Your task to perform on an android device: open app "Messenger Lite" (install if not already installed) Image 0: 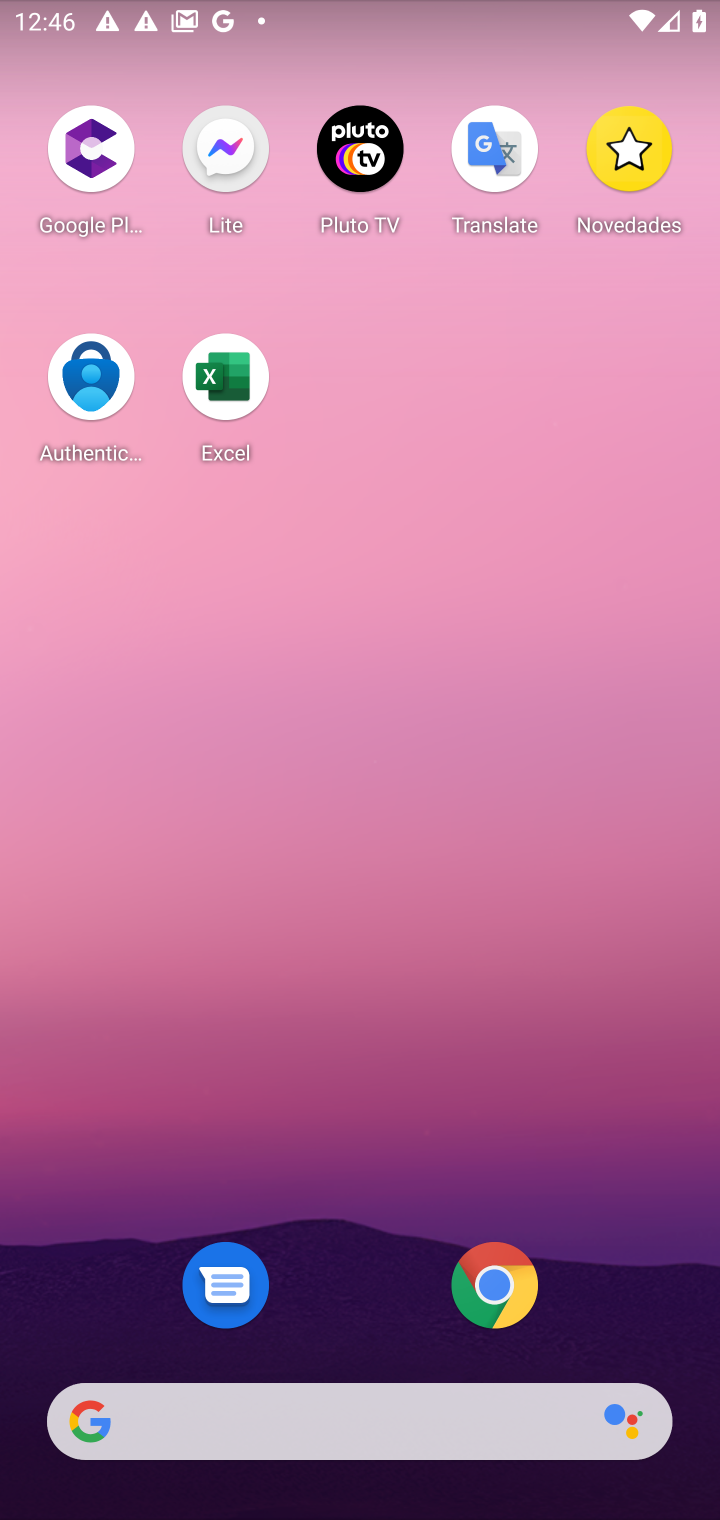
Step 0: drag from (385, 589) to (472, 176)
Your task to perform on an android device: open app "Messenger Lite" (install if not already installed) Image 1: 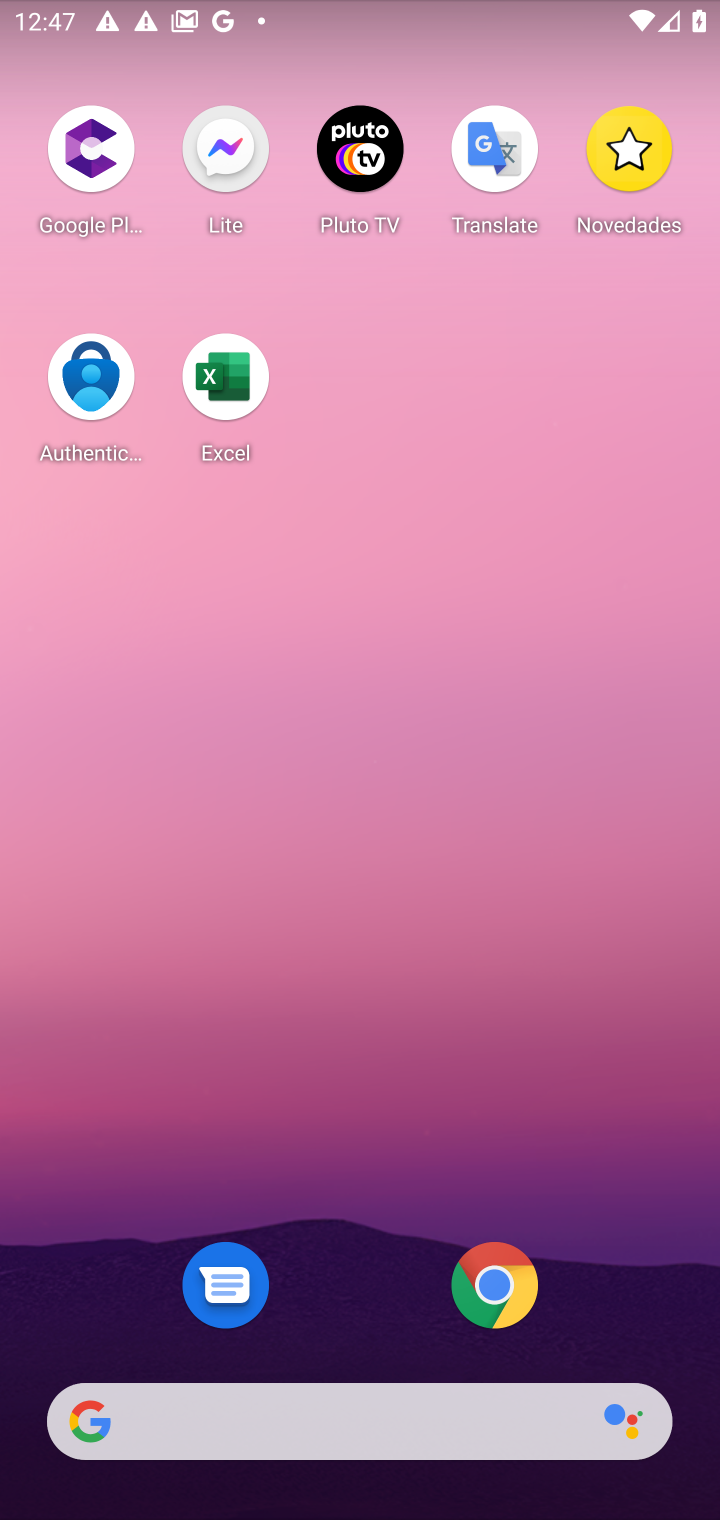
Step 1: click (586, 64)
Your task to perform on an android device: open app "Messenger Lite" (install if not already installed) Image 2: 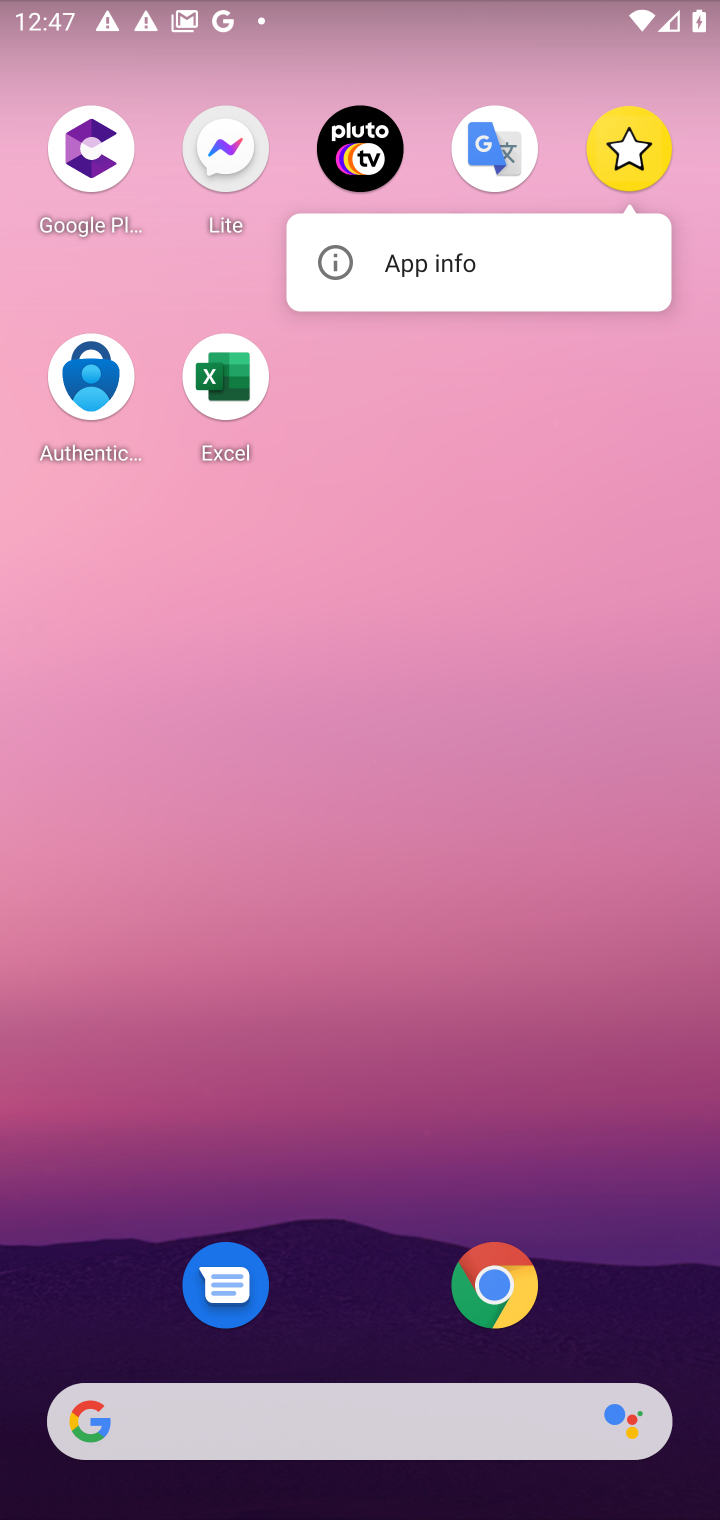
Step 2: click (407, 935)
Your task to perform on an android device: open app "Messenger Lite" (install if not already installed) Image 3: 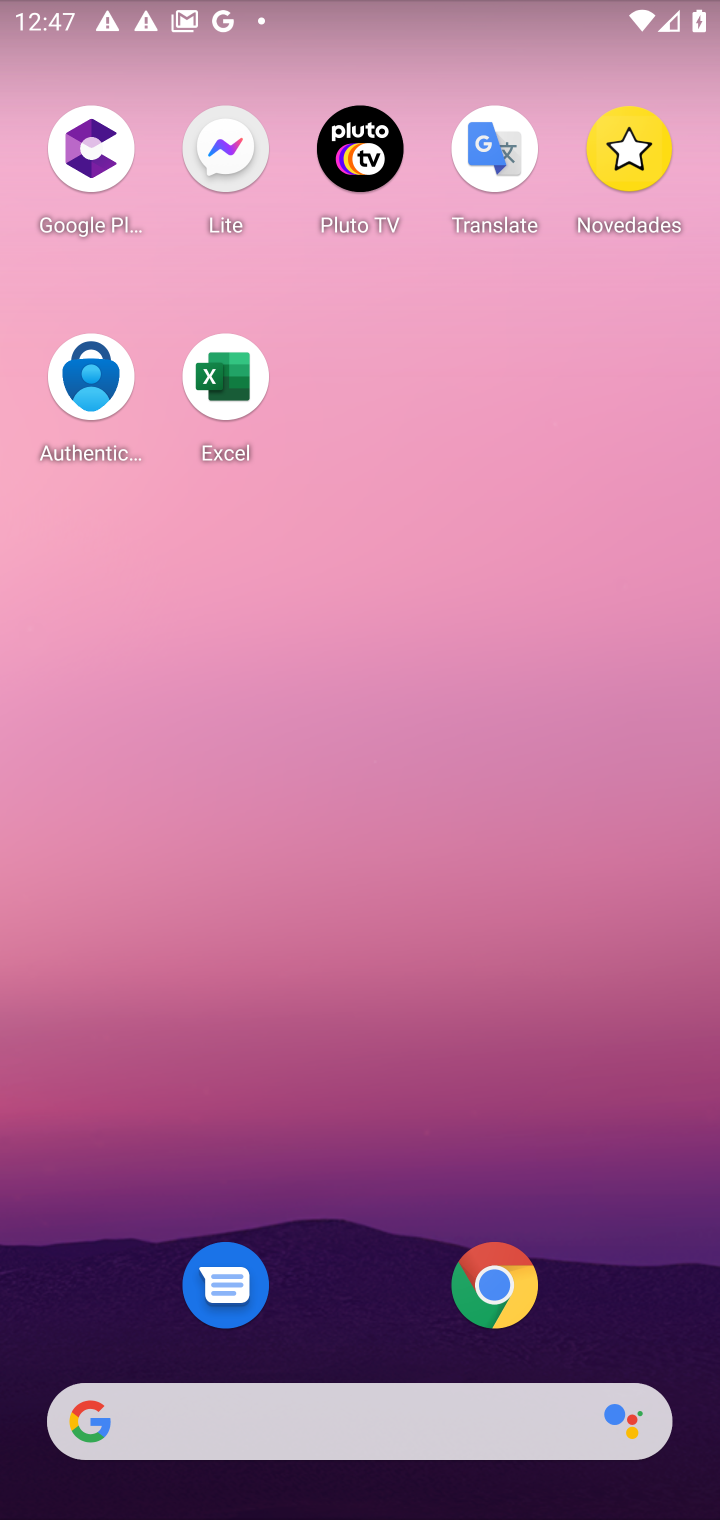
Step 3: drag from (401, 1059) to (540, 244)
Your task to perform on an android device: open app "Messenger Lite" (install if not already installed) Image 4: 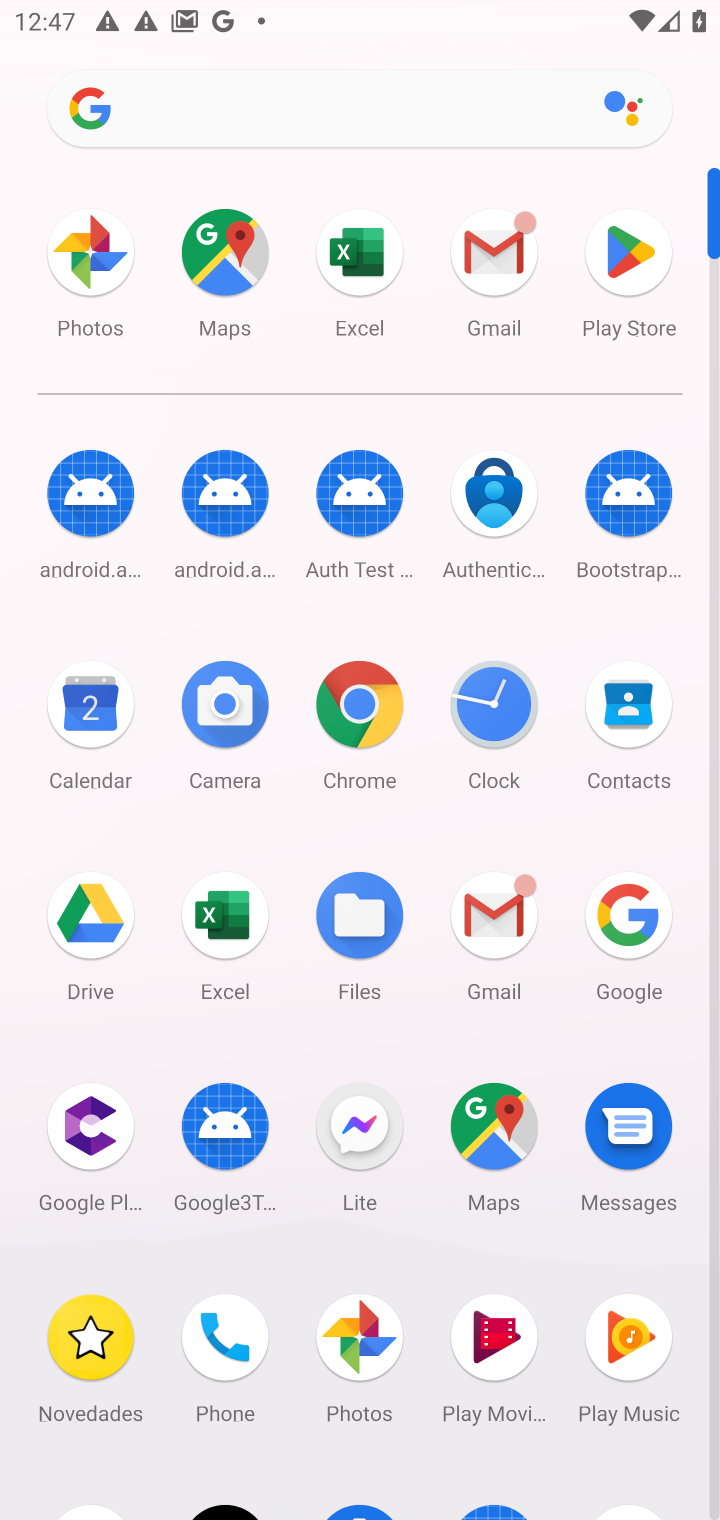
Step 4: drag from (429, 1261) to (503, 494)
Your task to perform on an android device: open app "Messenger Lite" (install if not already installed) Image 5: 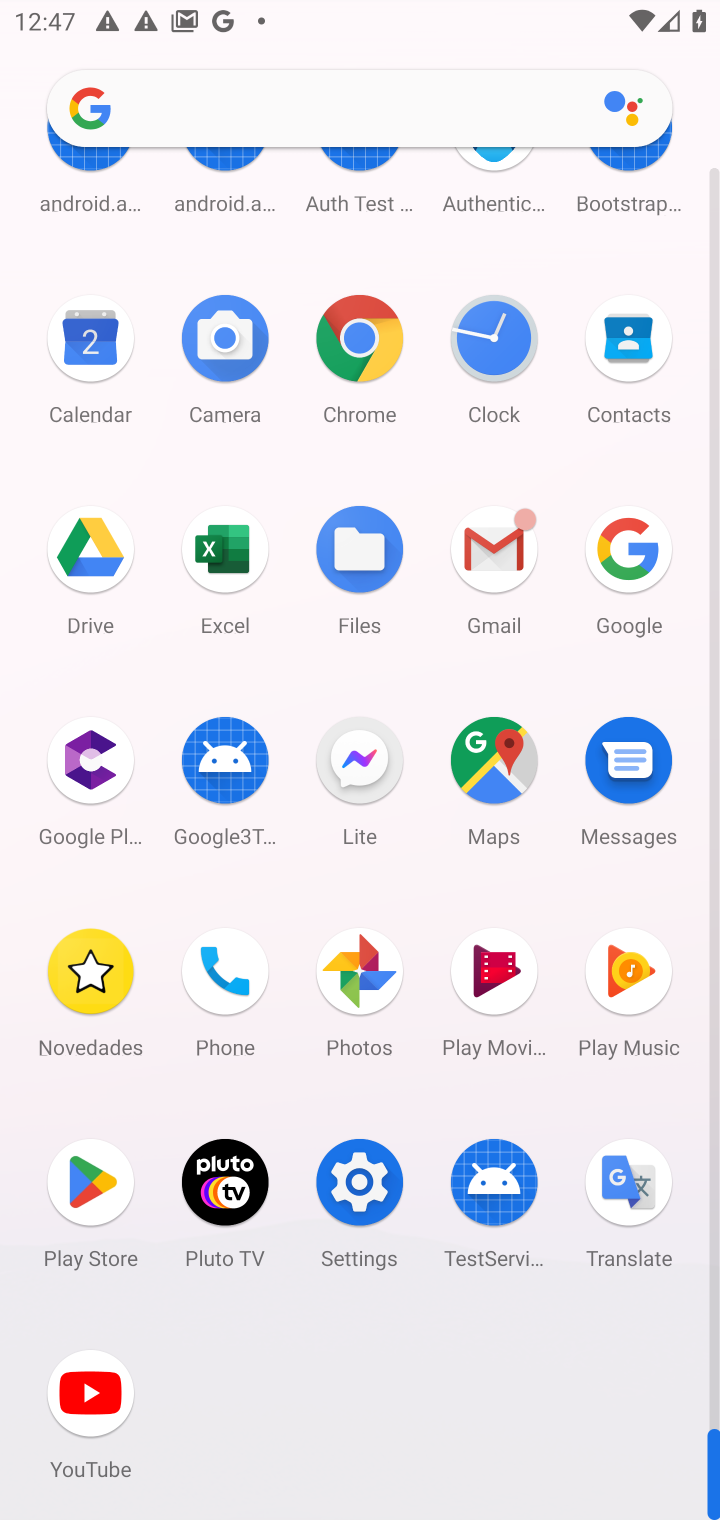
Step 5: click (74, 1173)
Your task to perform on an android device: open app "Messenger Lite" (install if not already installed) Image 6: 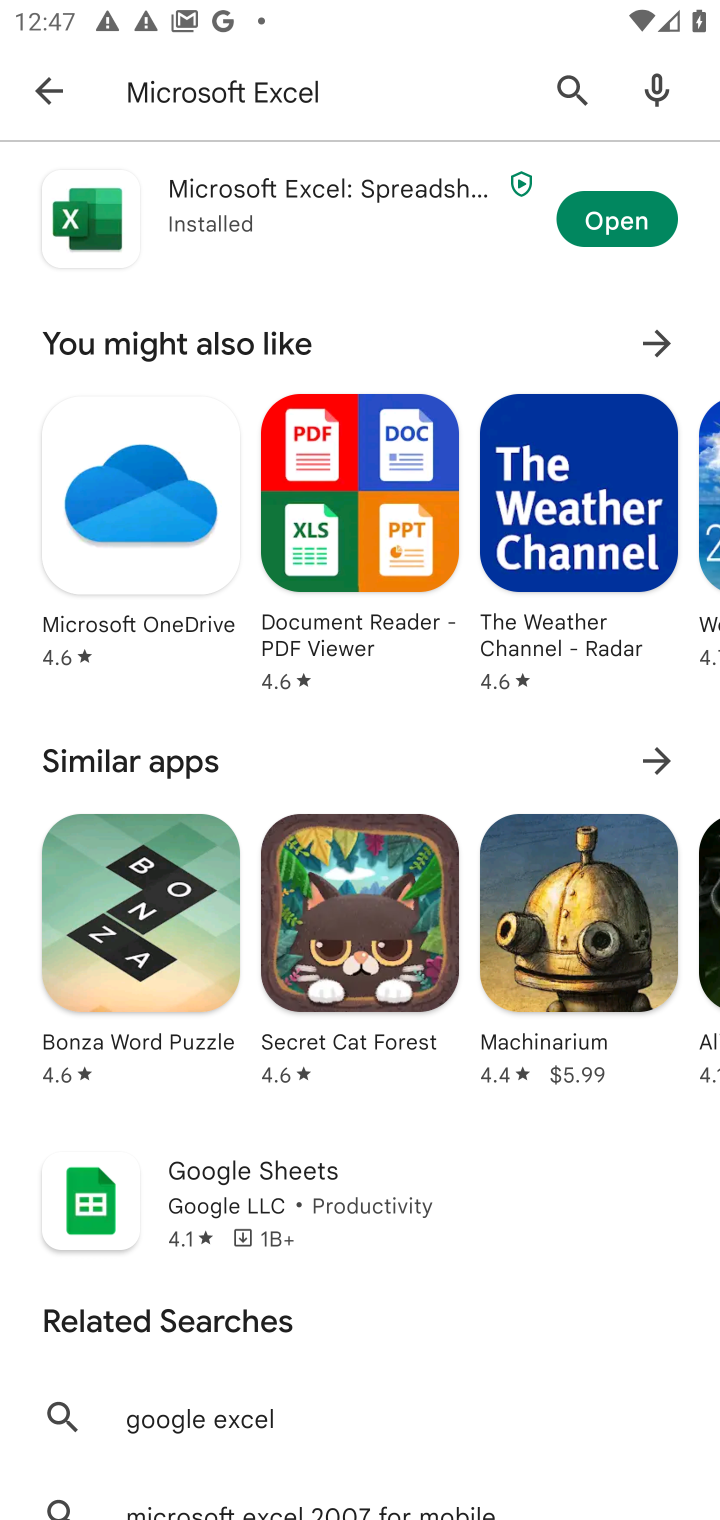
Step 6: click (463, 96)
Your task to perform on an android device: open app "Messenger Lite" (install if not already installed) Image 7: 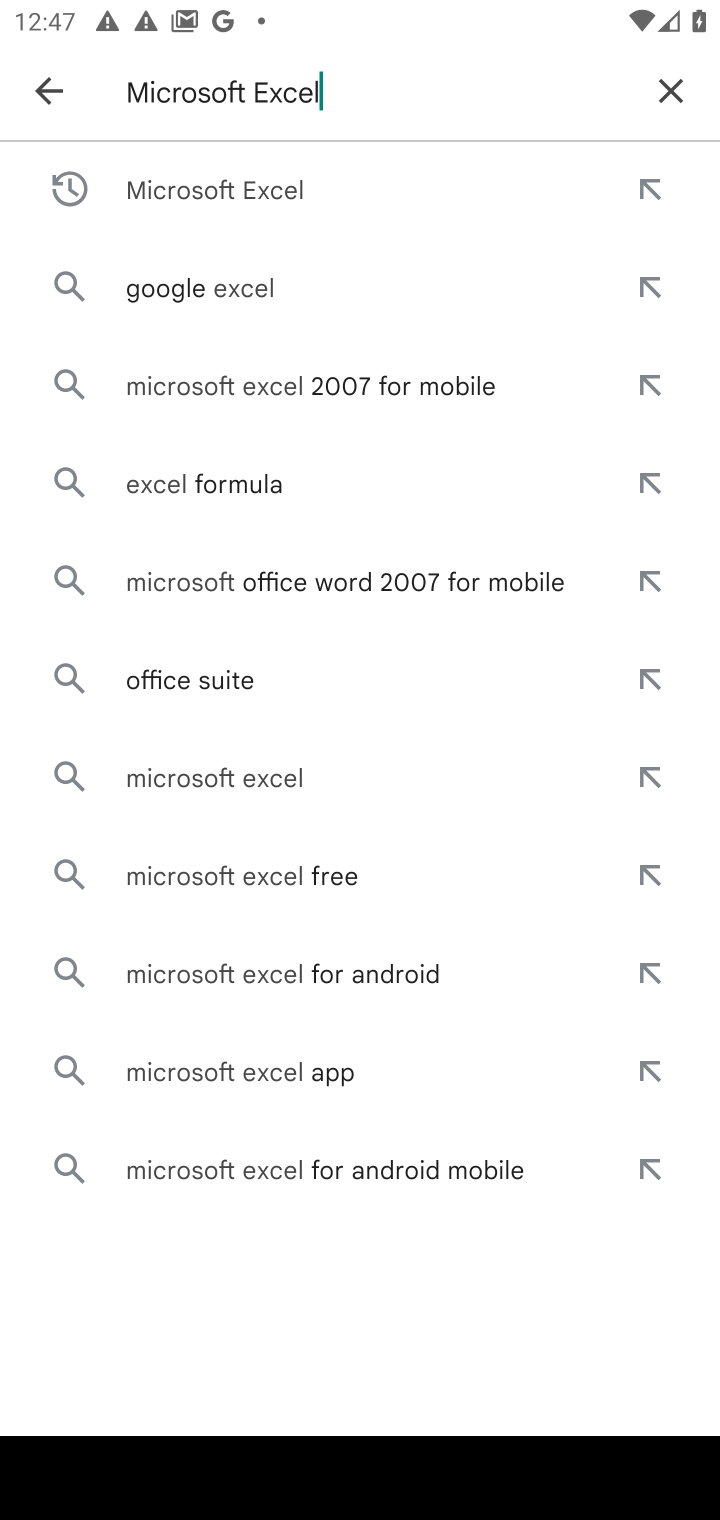
Step 7: click (674, 83)
Your task to perform on an android device: open app "Messenger Lite" (install if not already installed) Image 8: 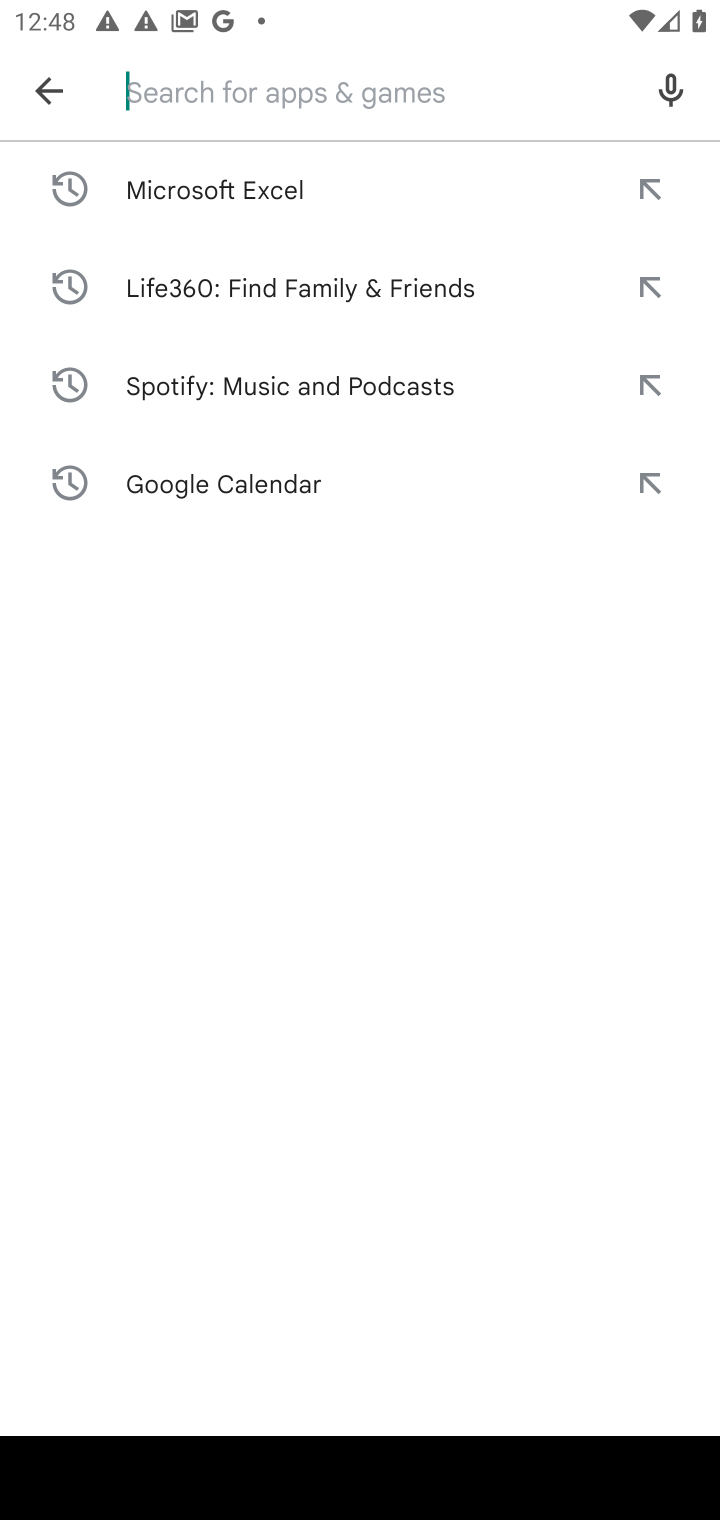
Step 8: type "Messenger Lite"
Your task to perform on an android device: open app "Messenger Lite" (install if not already installed) Image 9: 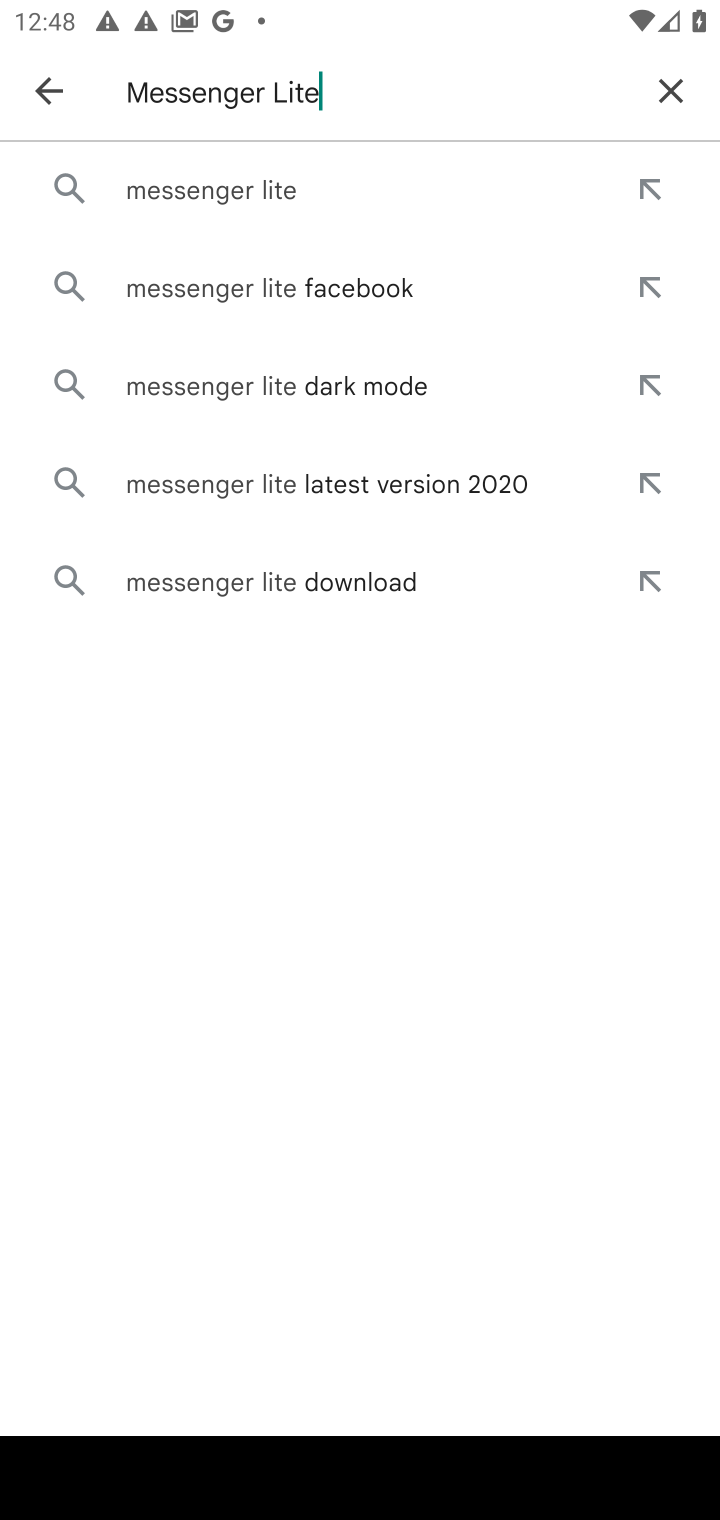
Step 9: press enter
Your task to perform on an android device: open app "Messenger Lite" (install if not already installed) Image 10: 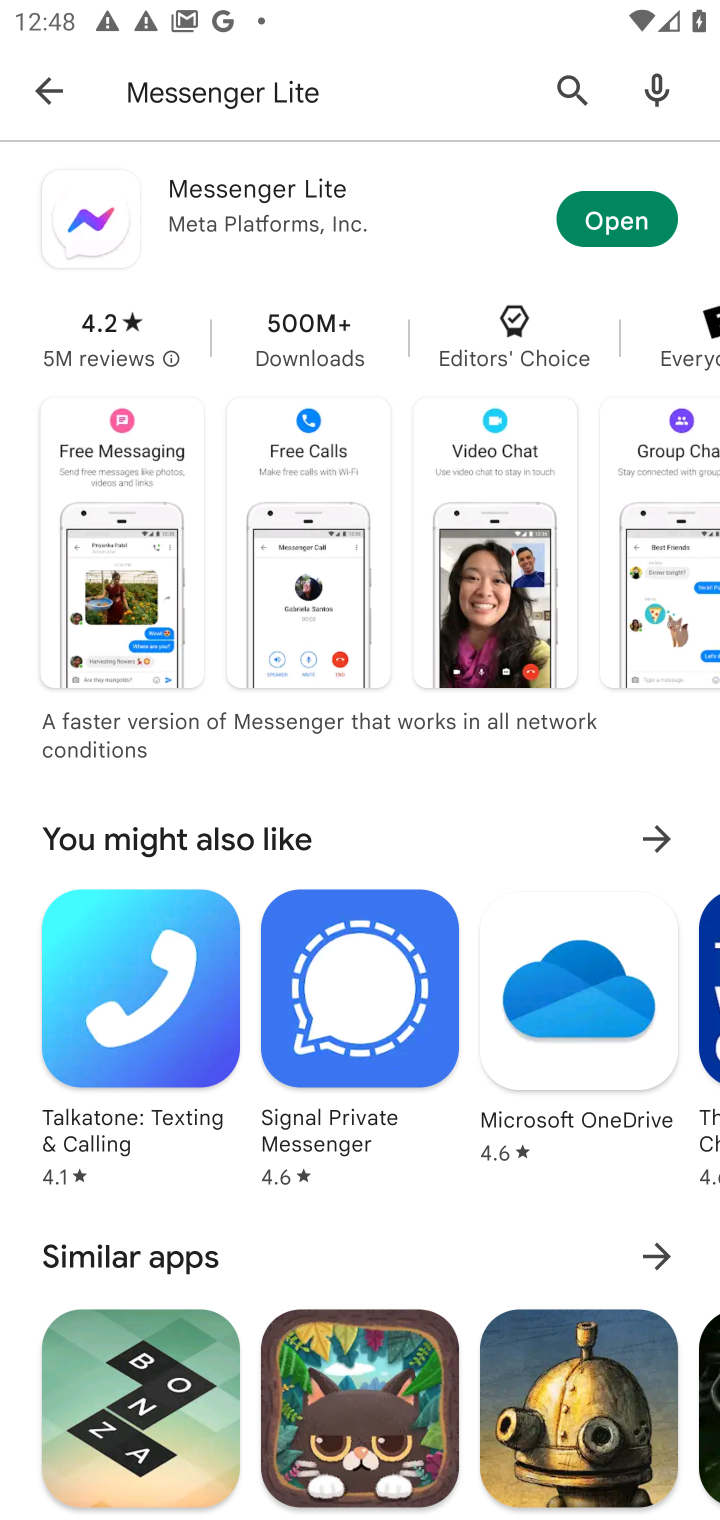
Step 10: click (646, 202)
Your task to perform on an android device: open app "Messenger Lite" (install if not already installed) Image 11: 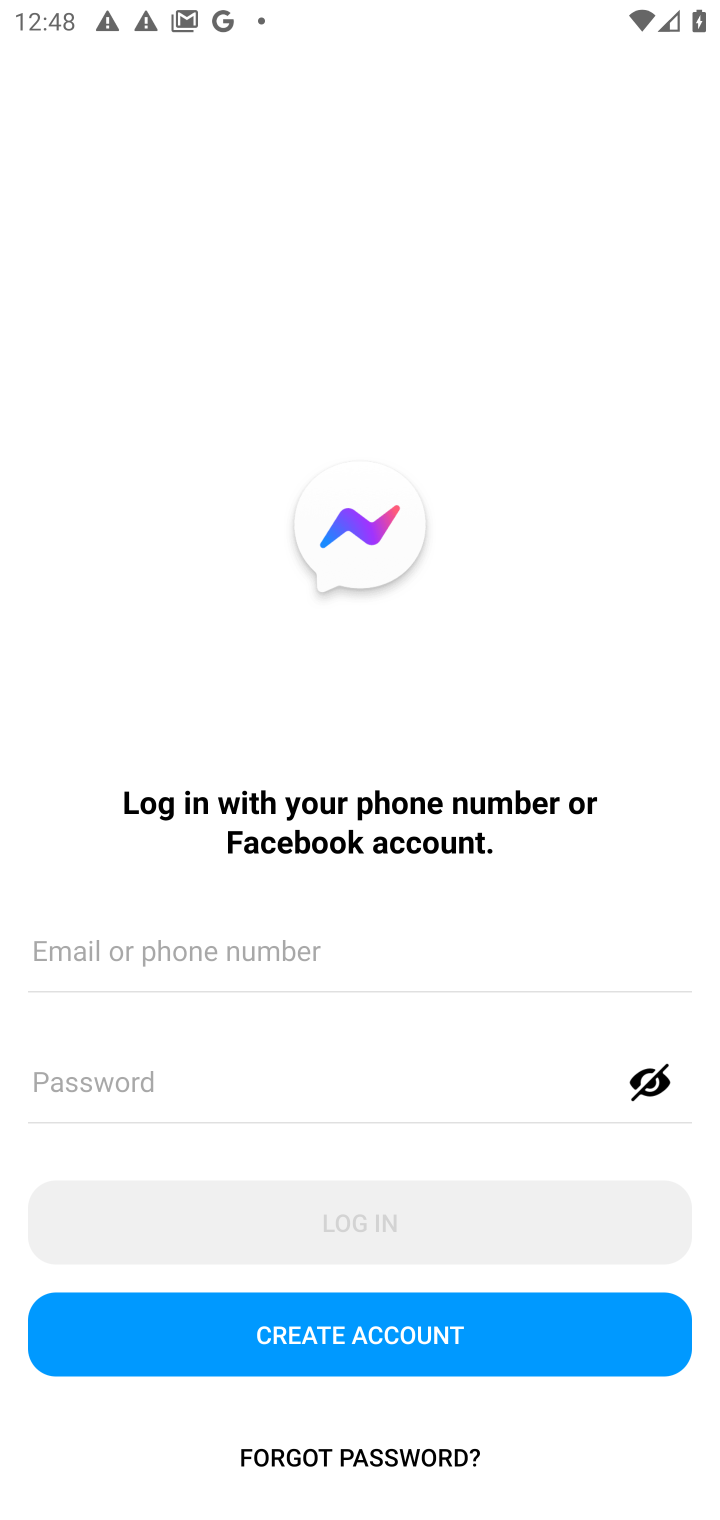
Step 11: task complete